Your task to perform on an android device: turn off location history Image 0: 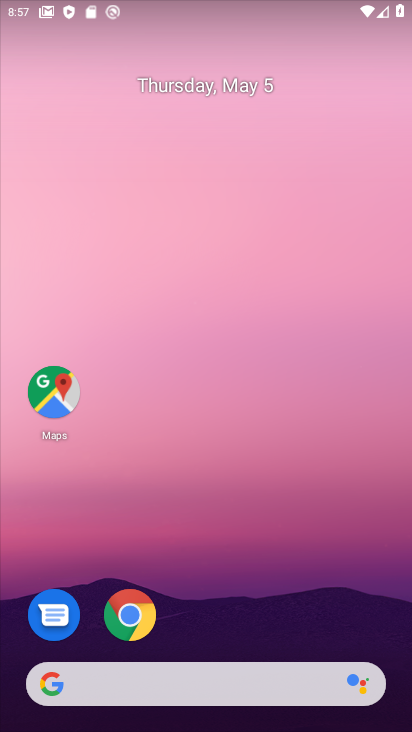
Step 0: drag from (49, 562) to (297, 236)
Your task to perform on an android device: turn off location history Image 1: 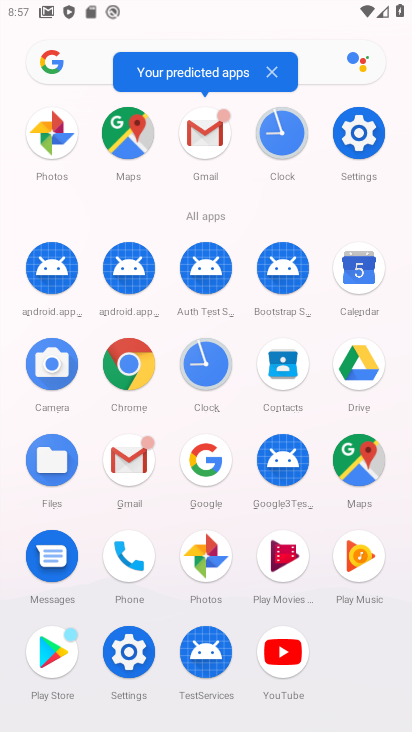
Step 1: click (375, 147)
Your task to perform on an android device: turn off location history Image 2: 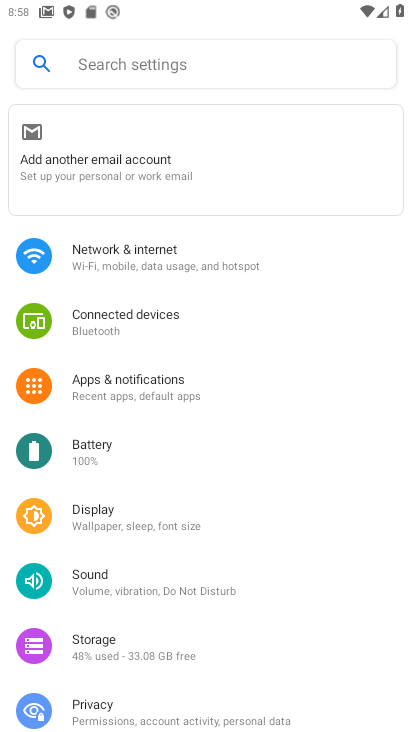
Step 2: drag from (118, 629) to (216, 303)
Your task to perform on an android device: turn off location history Image 3: 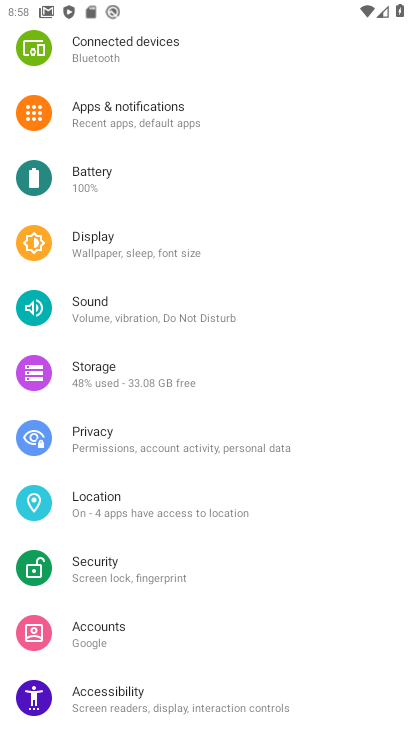
Step 3: click (147, 512)
Your task to perform on an android device: turn off location history Image 4: 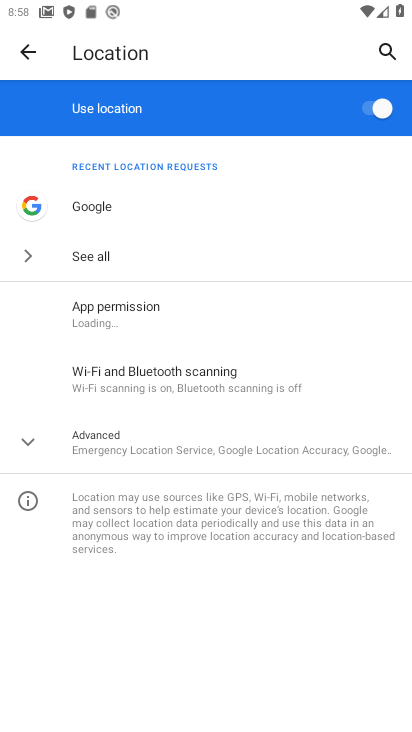
Step 4: click (136, 429)
Your task to perform on an android device: turn off location history Image 5: 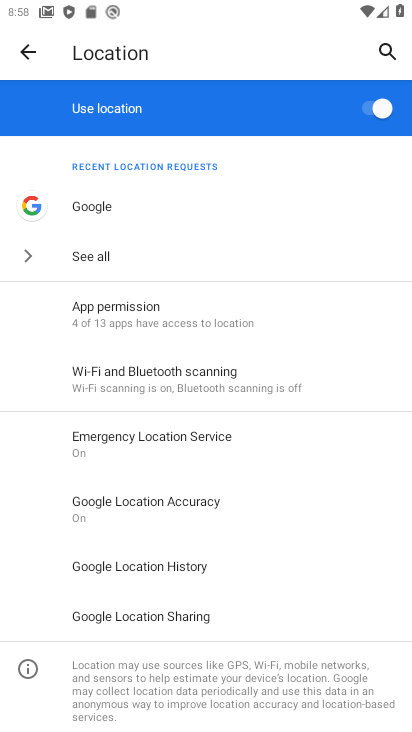
Step 5: click (144, 564)
Your task to perform on an android device: turn off location history Image 6: 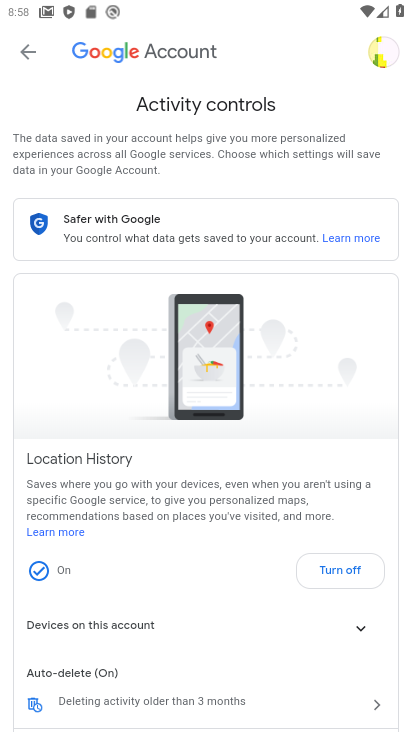
Step 6: click (327, 569)
Your task to perform on an android device: turn off location history Image 7: 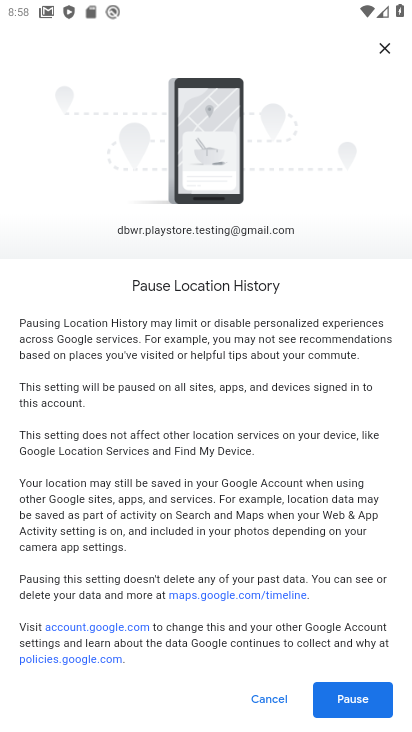
Step 7: drag from (298, 583) to (408, 182)
Your task to perform on an android device: turn off location history Image 8: 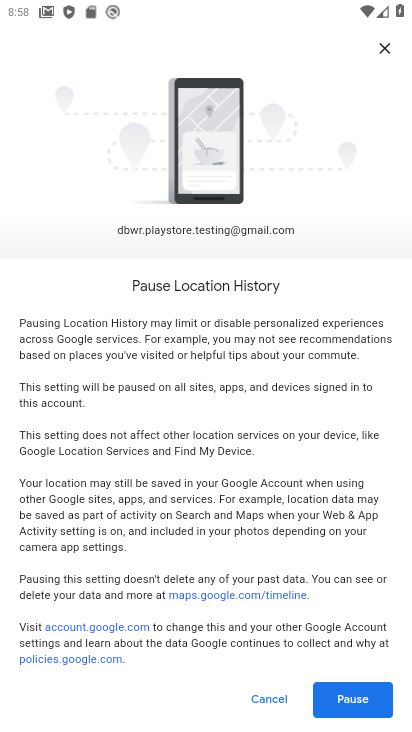
Step 8: click (358, 679)
Your task to perform on an android device: turn off location history Image 9: 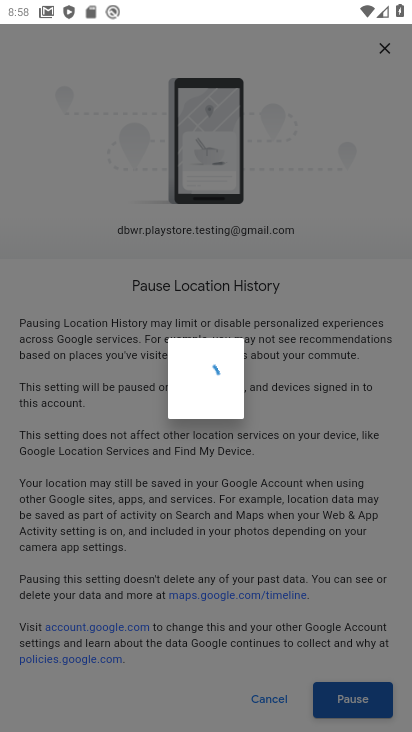
Step 9: click (350, 698)
Your task to perform on an android device: turn off location history Image 10: 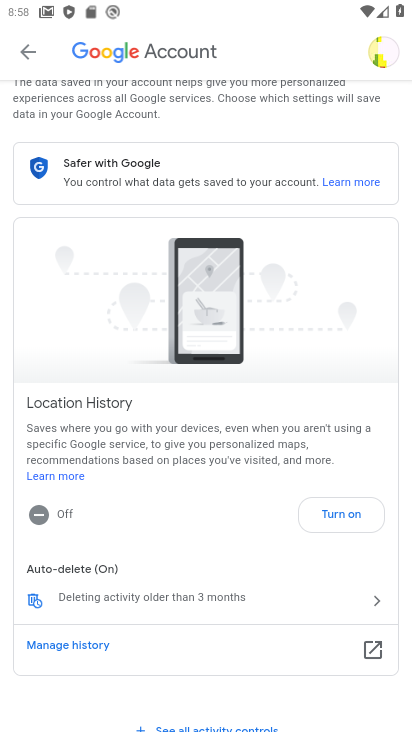
Step 10: task complete